Your task to perform on an android device: star an email in the gmail app Image 0: 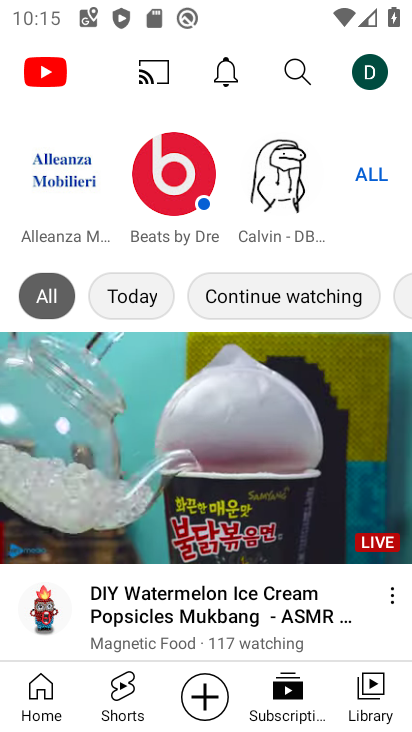
Step 0: press home button
Your task to perform on an android device: star an email in the gmail app Image 1: 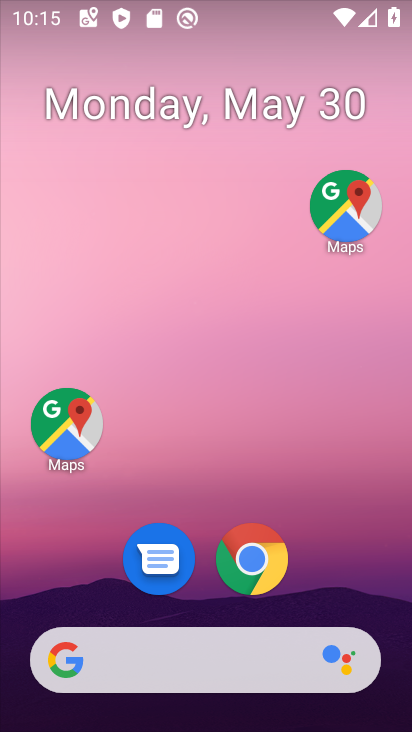
Step 1: drag from (341, 554) to (285, 39)
Your task to perform on an android device: star an email in the gmail app Image 2: 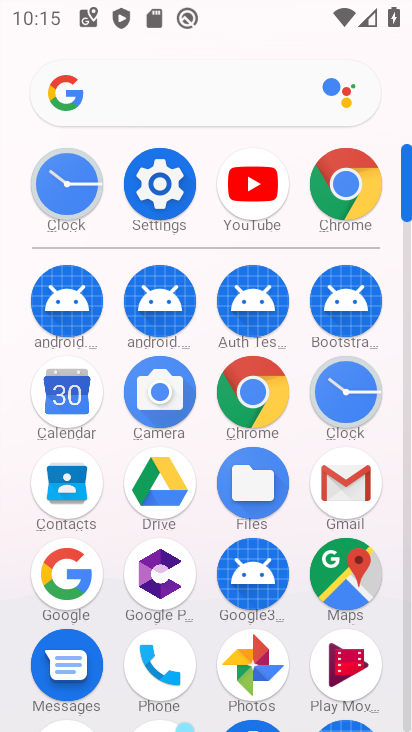
Step 2: click (355, 483)
Your task to perform on an android device: star an email in the gmail app Image 3: 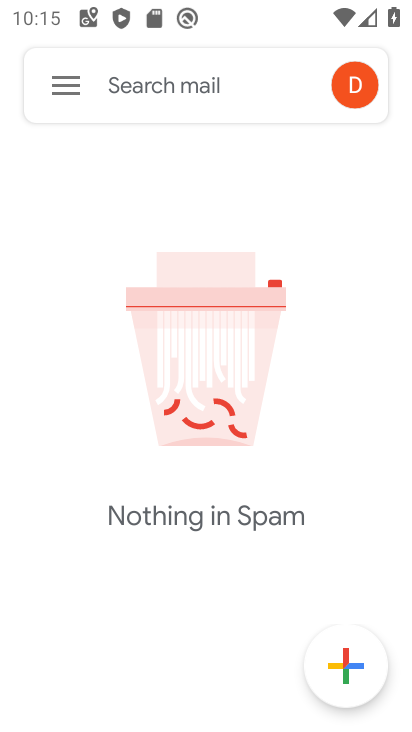
Step 3: click (49, 73)
Your task to perform on an android device: star an email in the gmail app Image 4: 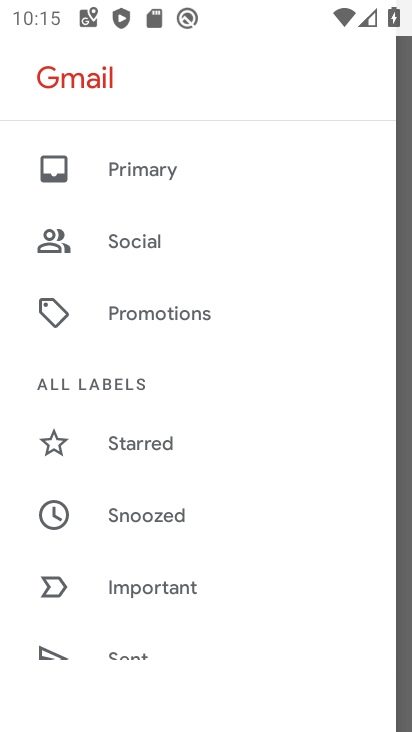
Step 4: drag from (147, 537) to (185, 111)
Your task to perform on an android device: star an email in the gmail app Image 5: 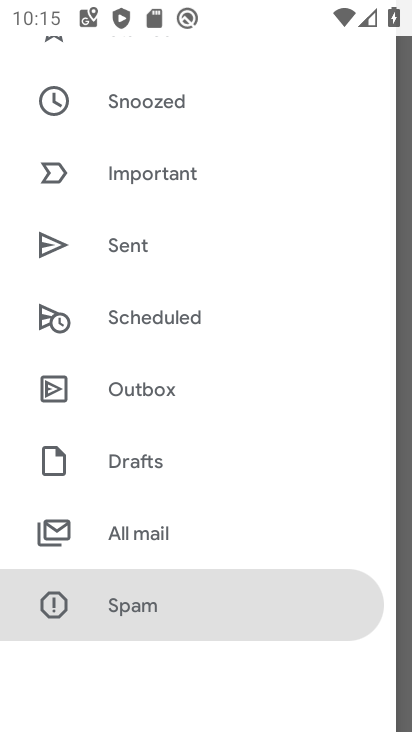
Step 5: click (131, 530)
Your task to perform on an android device: star an email in the gmail app Image 6: 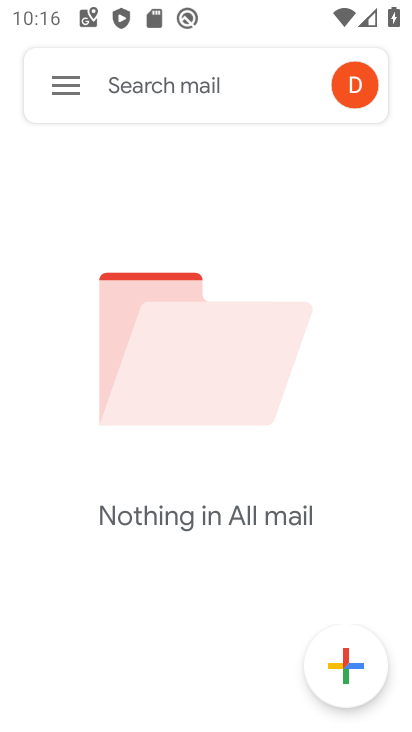
Step 6: task complete